Your task to perform on an android device: Show me recent news Image 0: 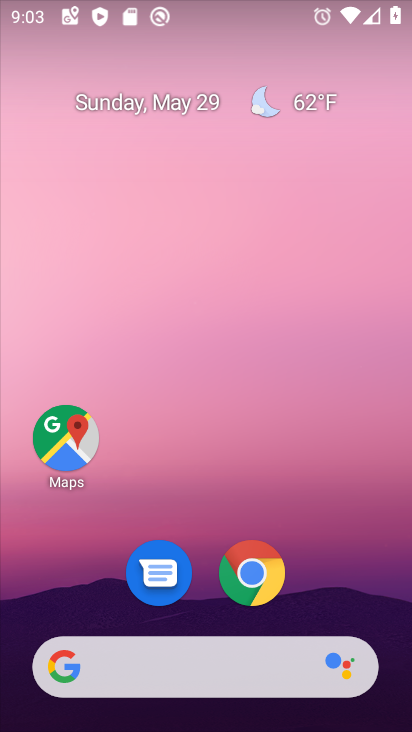
Step 0: press home button
Your task to perform on an android device: Show me recent news Image 1: 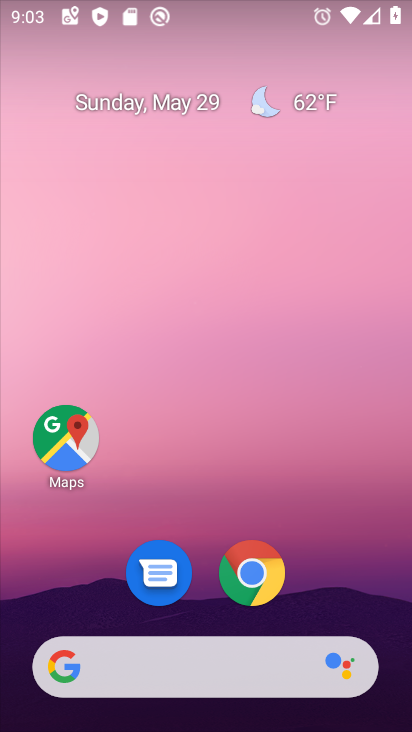
Step 1: click (69, 676)
Your task to perform on an android device: Show me recent news Image 2: 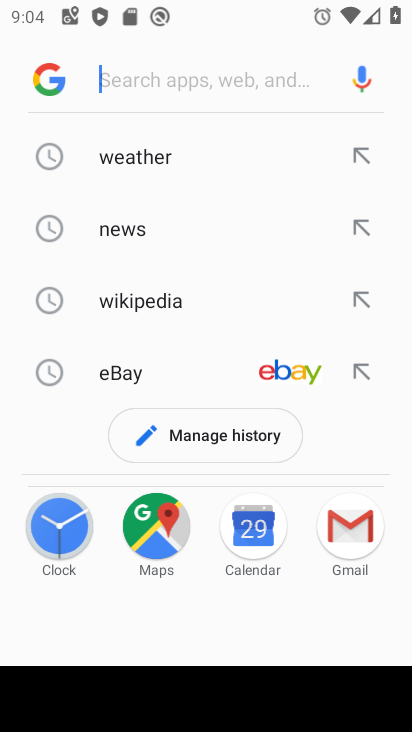
Step 2: type "recent news"
Your task to perform on an android device: Show me recent news Image 3: 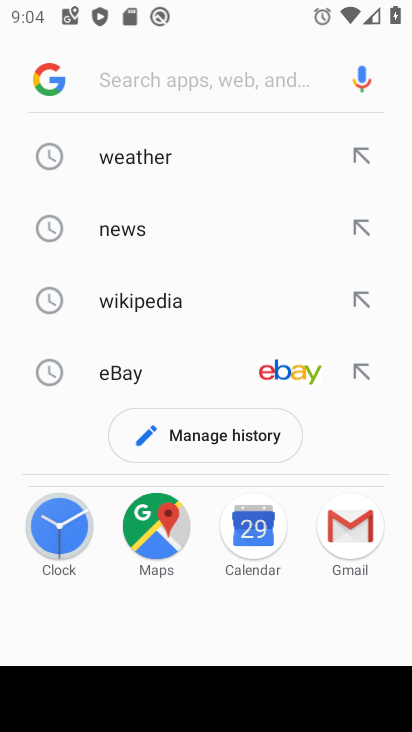
Step 3: click (186, 83)
Your task to perform on an android device: Show me recent news Image 4: 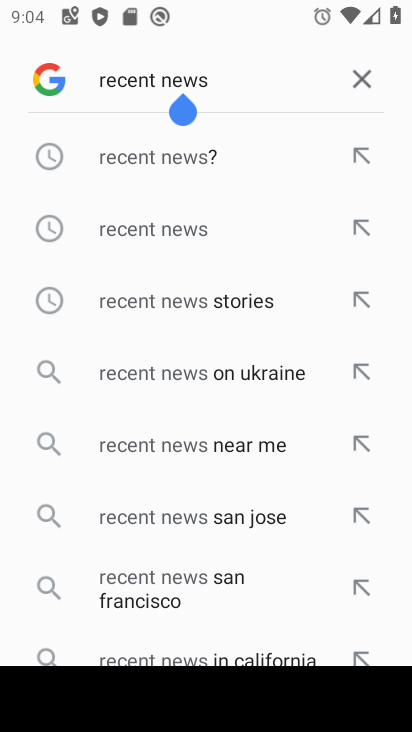
Step 4: click (164, 236)
Your task to perform on an android device: Show me recent news Image 5: 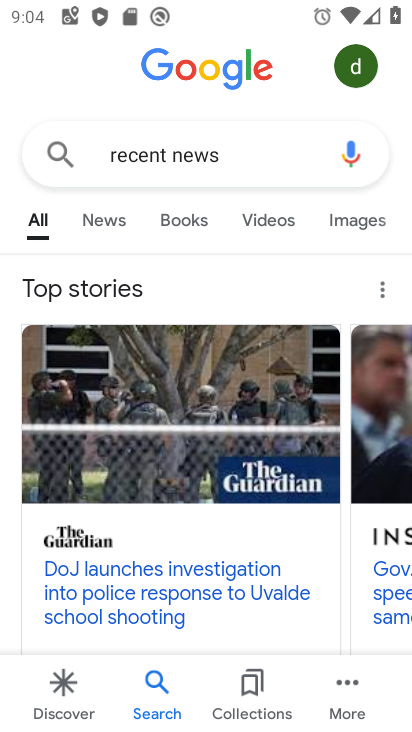
Step 5: task complete